Your task to perform on an android device: open app "Google Play Music" Image 0: 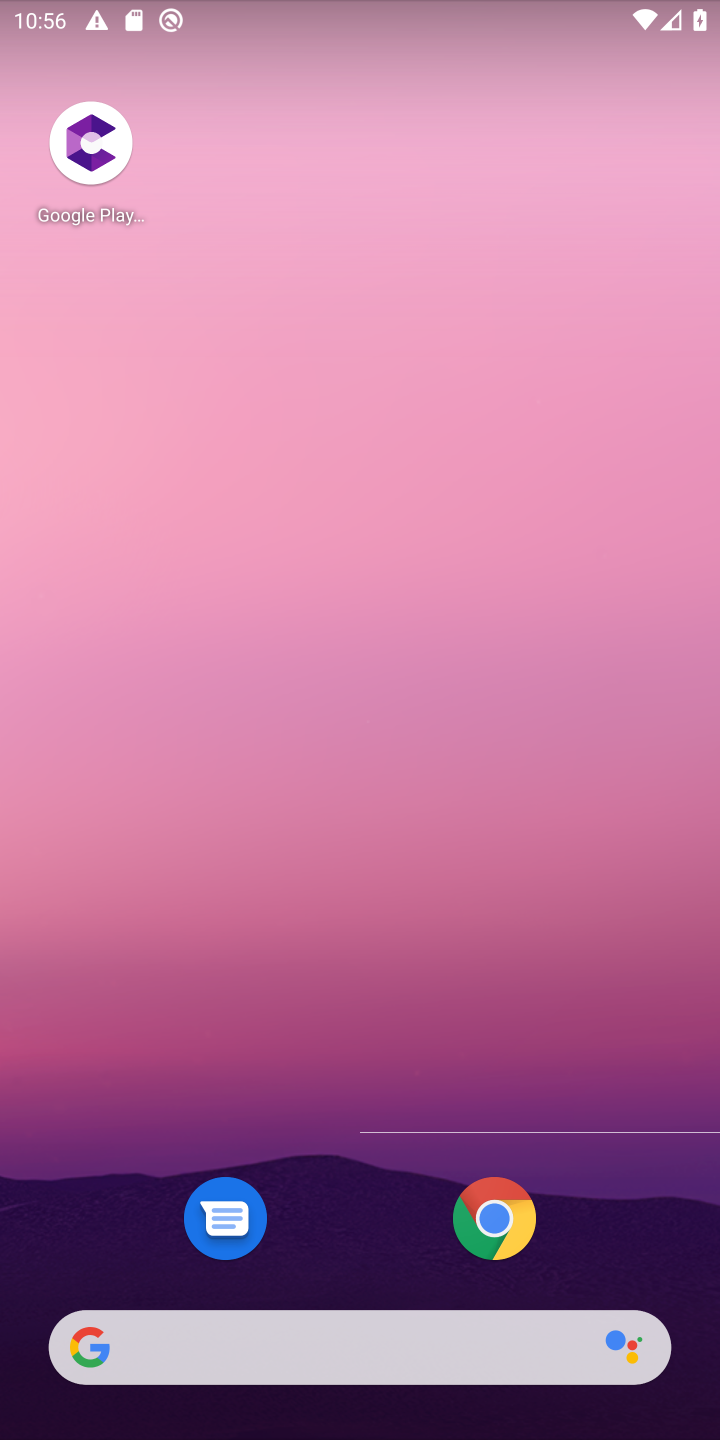
Step 0: drag from (362, 1296) to (518, 82)
Your task to perform on an android device: open app "Google Play Music" Image 1: 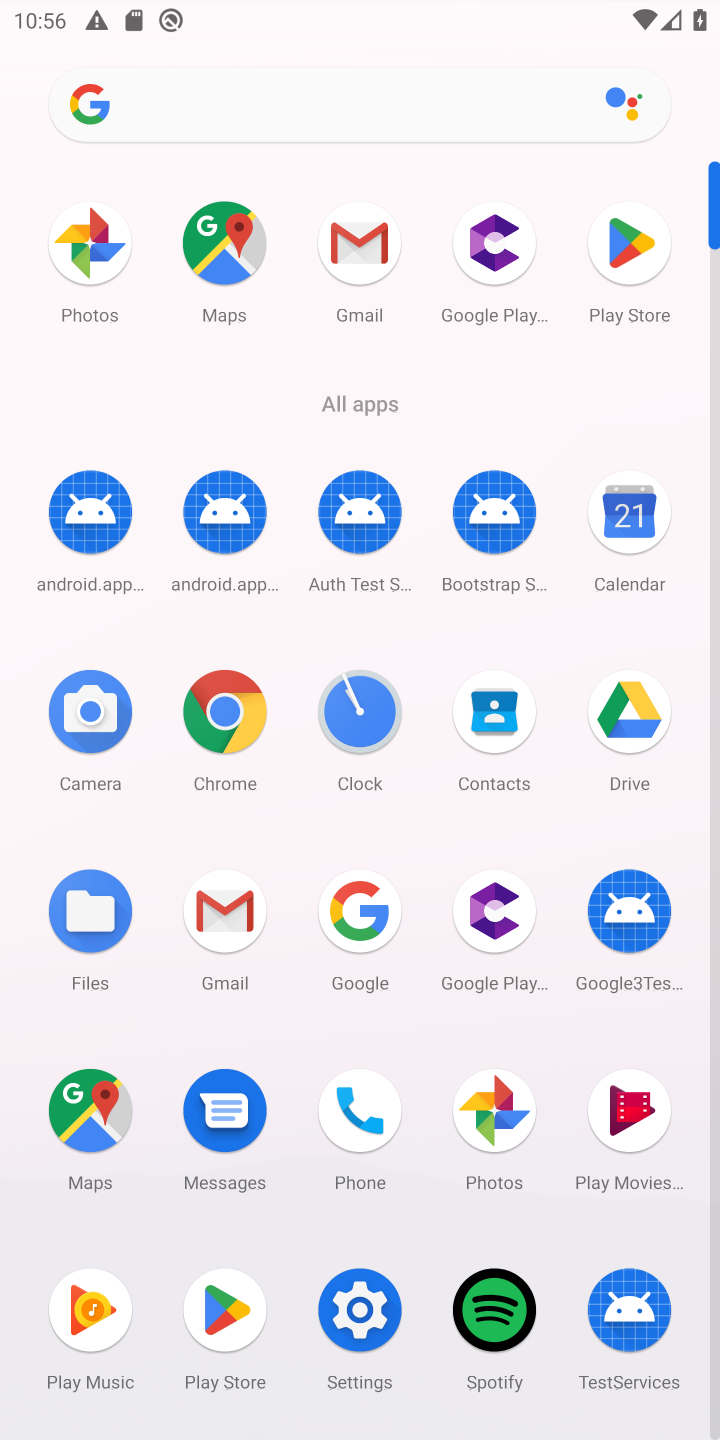
Step 1: click (96, 1296)
Your task to perform on an android device: open app "Google Play Music" Image 2: 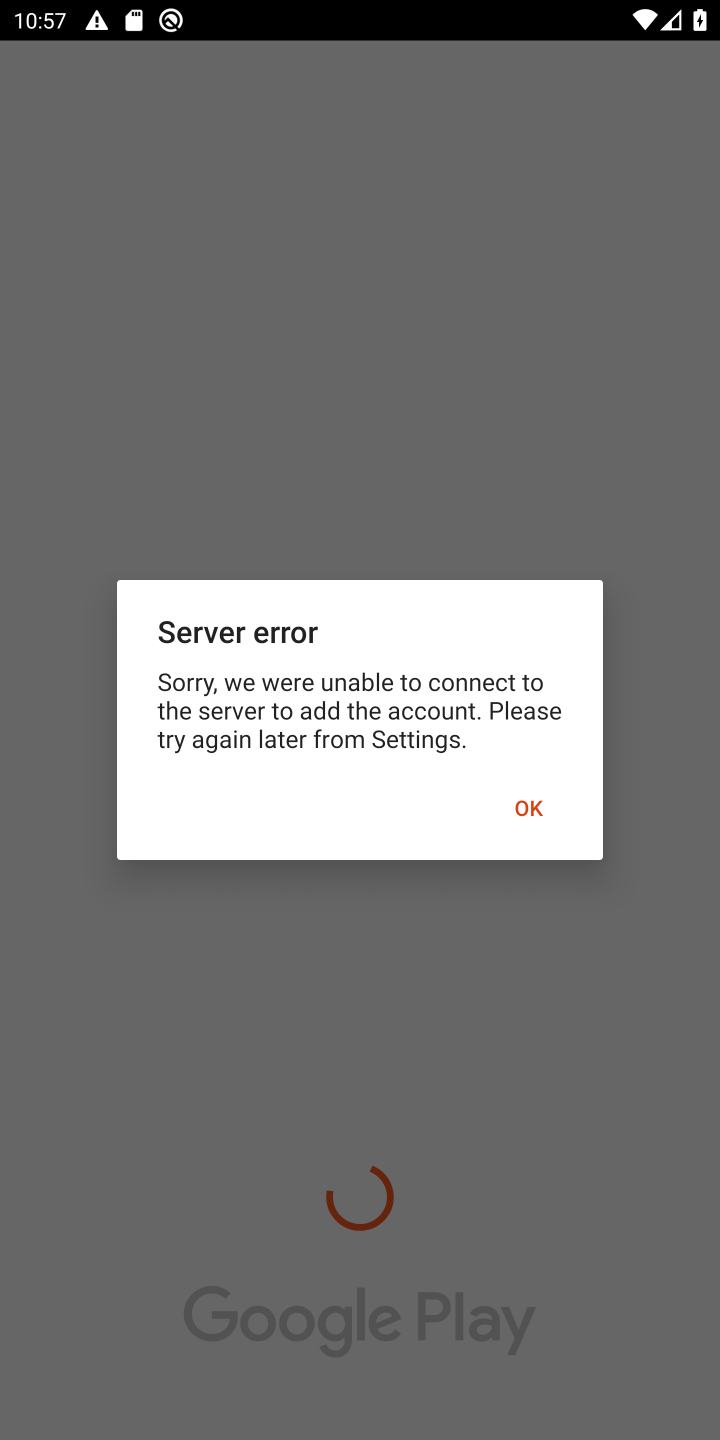
Step 2: task complete